Your task to perform on an android device: Do I have any events this weekend? Image 0: 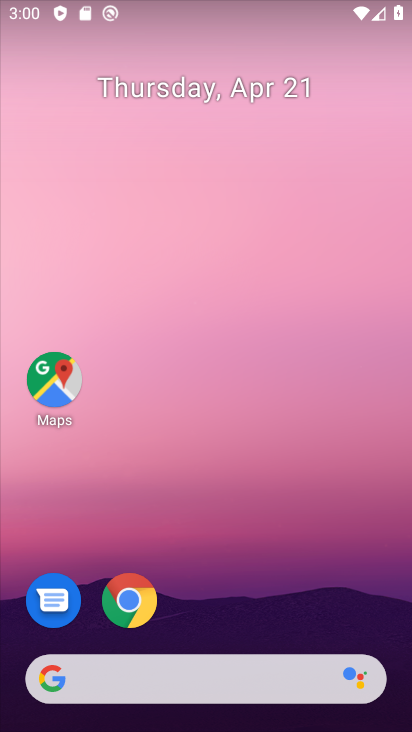
Step 0: drag from (276, 513) to (253, 62)
Your task to perform on an android device: Do I have any events this weekend? Image 1: 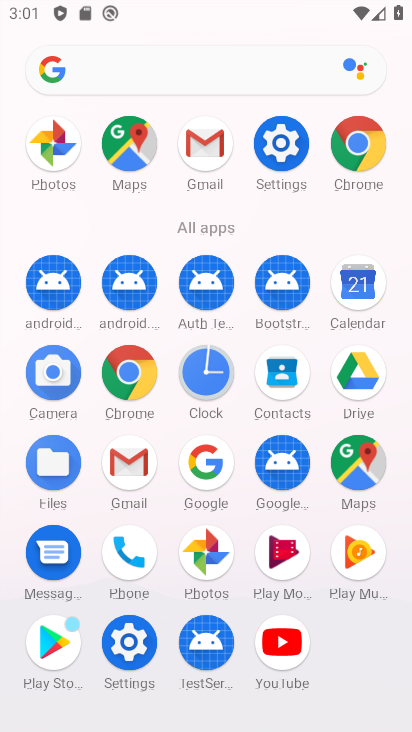
Step 1: click (279, 139)
Your task to perform on an android device: Do I have any events this weekend? Image 2: 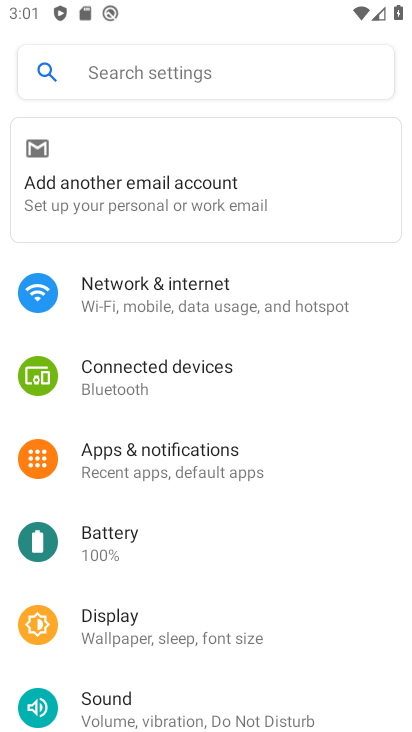
Step 2: click (260, 615)
Your task to perform on an android device: Do I have any events this weekend? Image 3: 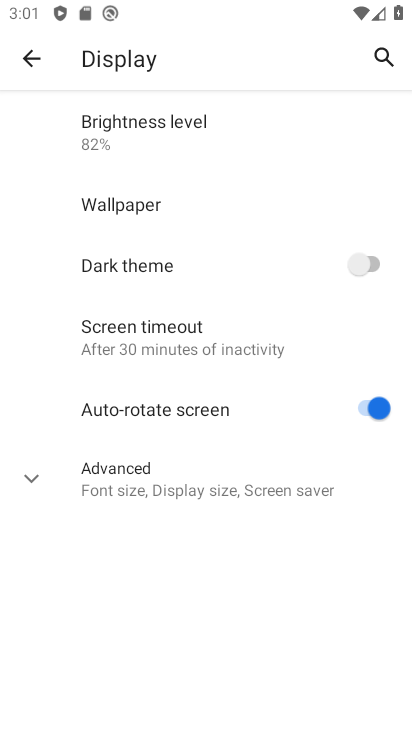
Step 3: task complete